Your task to perform on an android device: set the timer Image 0: 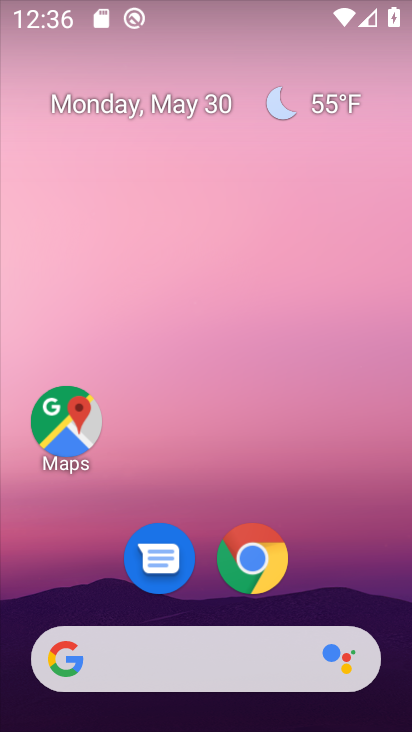
Step 0: drag from (351, 430) to (370, 7)
Your task to perform on an android device: set the timer Image 1: 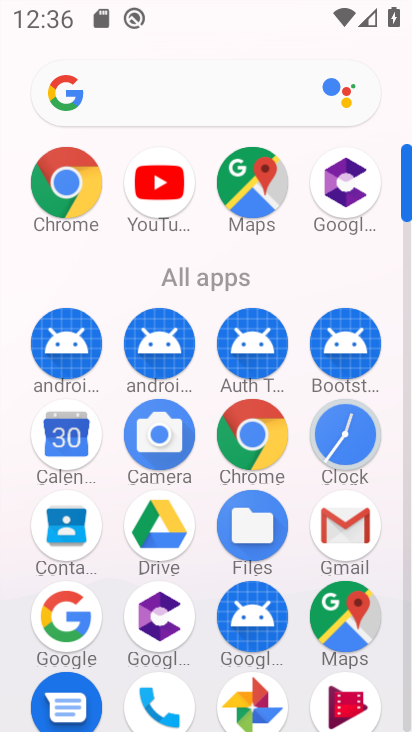
Step 1: click (358, 434)
Your task to perform on an android device: set the timer Image 2: 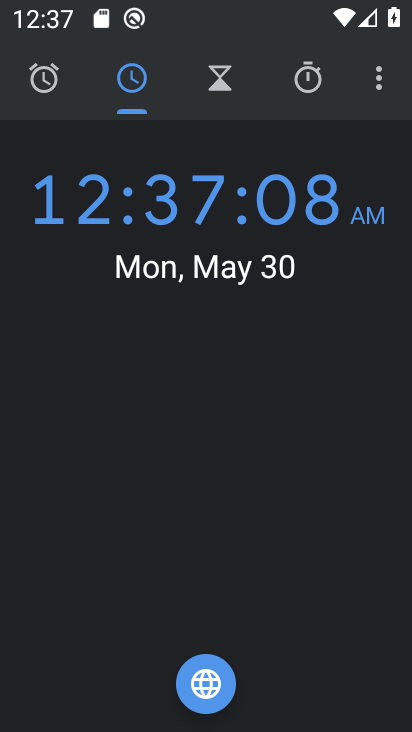
Step 2: click (220, 77)
Your task to perform on an android device: set the timer Image 3: 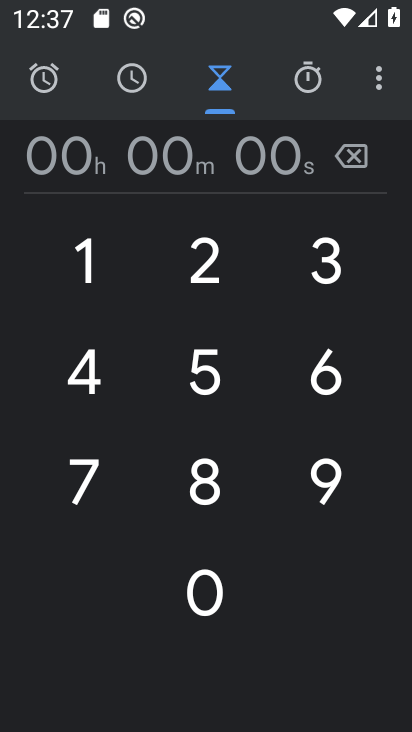
Step 3: click (247, 262)
Your task to perform on an android device: set the timer Image 4: 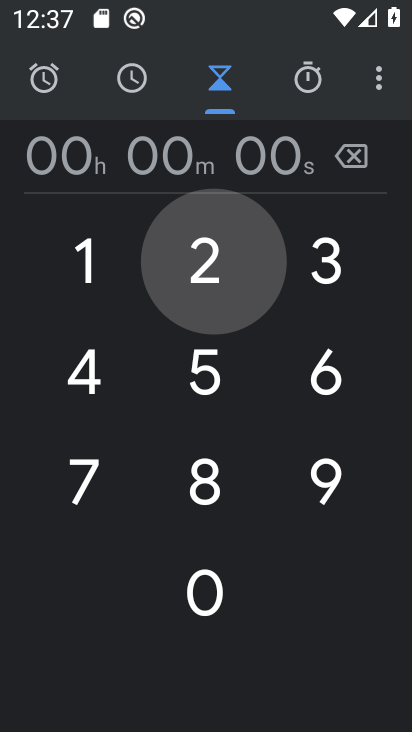
Step 4: click (225, 377)
Your task to perform on an android device: set the timer Image 5: 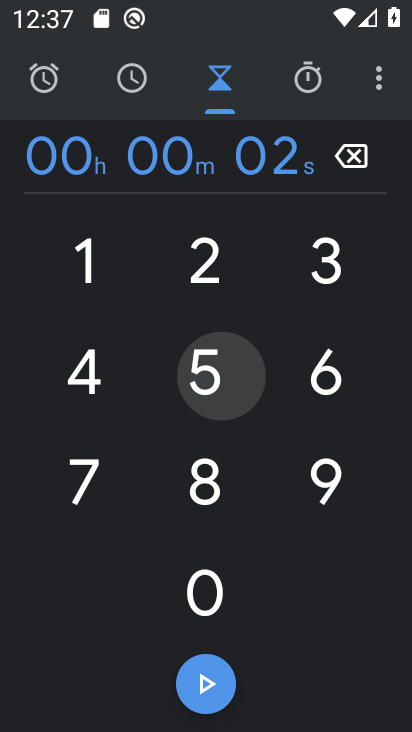
Step 5: click (214, 307)
Your task to perform on an android device: set the timer Image 6: 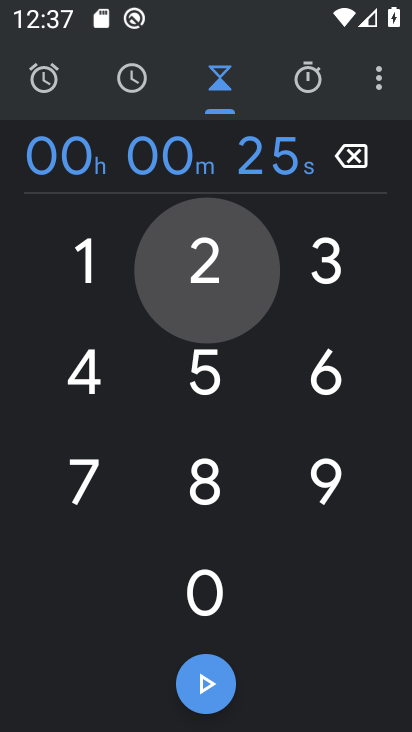
Step 6: click (209, 375)
Your task to perform on an android device: set the timer Image 7: 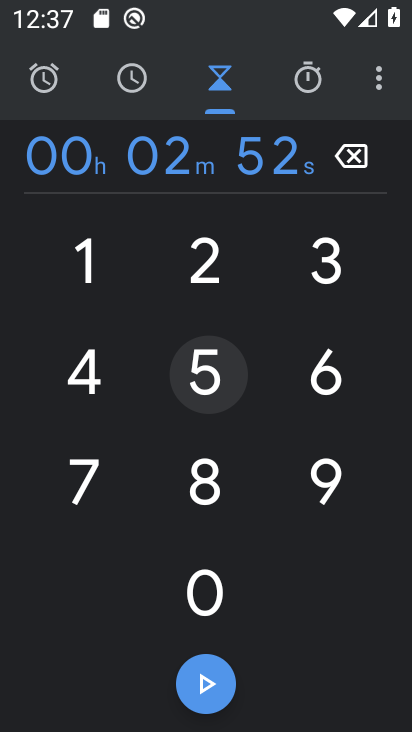
Step 7: click (198, 303)
Your task to perform on an android device: set the timer Image 8: 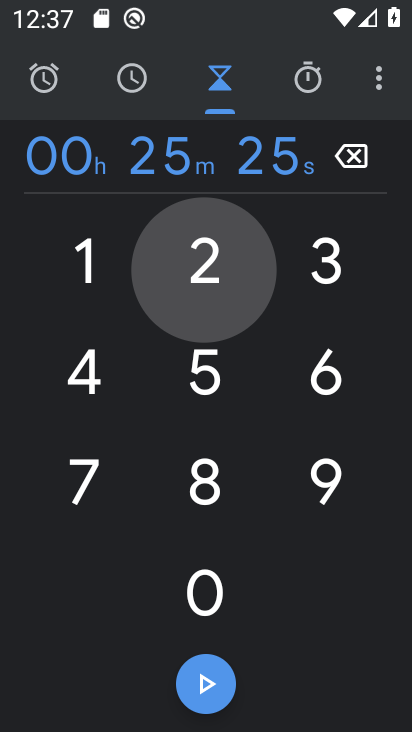
Step 8: click (201, 353)
Your task to perform on an android device: set the timer Image 9: 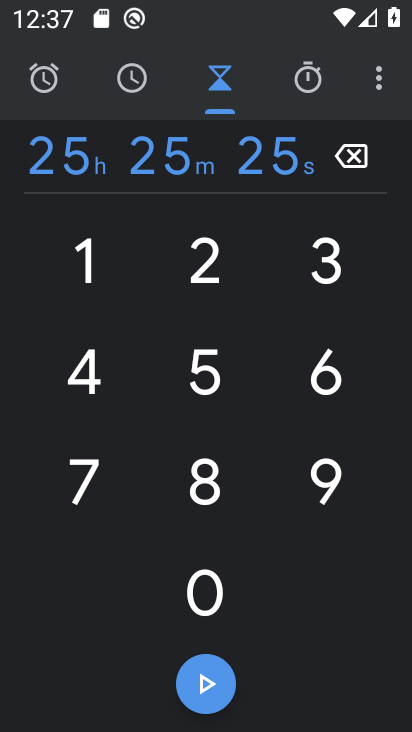
Step 9: click (183, 695)
Your task to perform on an android device: set the timer Image 10: 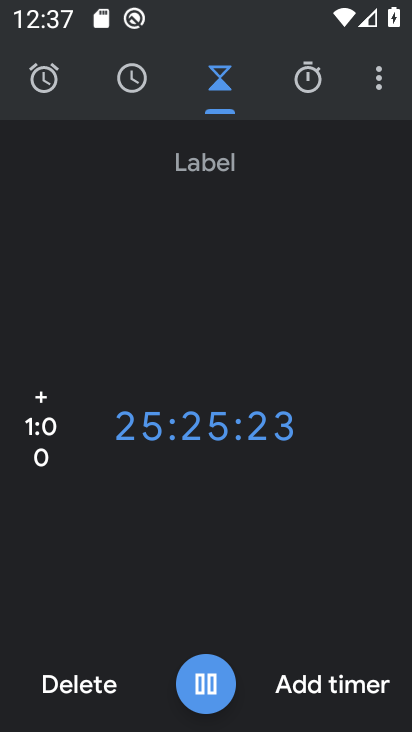
Step 10: task complete